Your task to perform on an android device: Do I have any events tomorrow? Image 0: 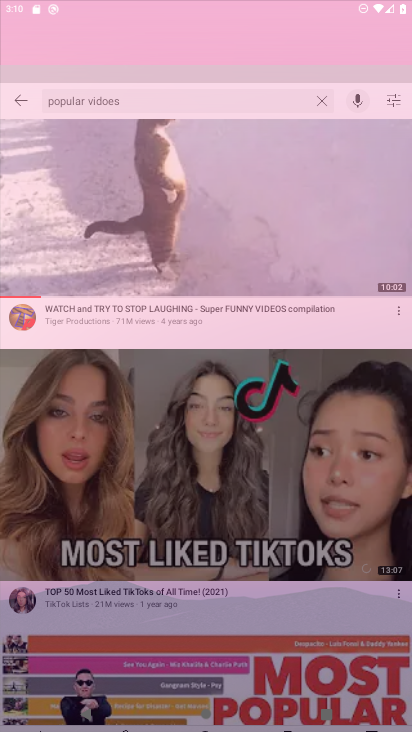
Step 0: drag from (309, 105) to (396, 149)
Your task to perform on an android device: Do I have any events tomorrow? Image 1: 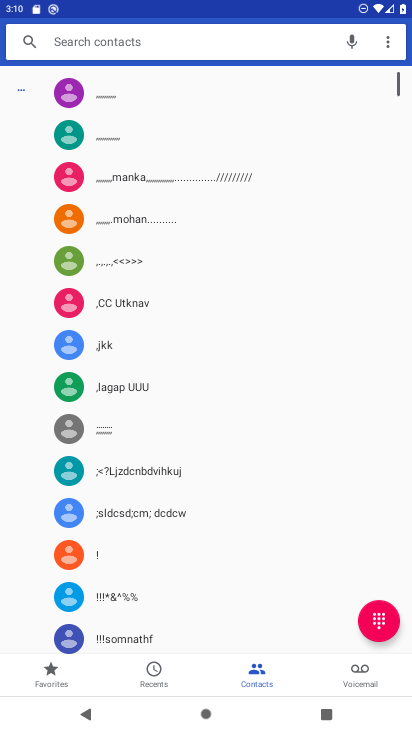
Step 1: press home button
Your task to perform on an android device: Do I have any events tomorrow? Image 2: 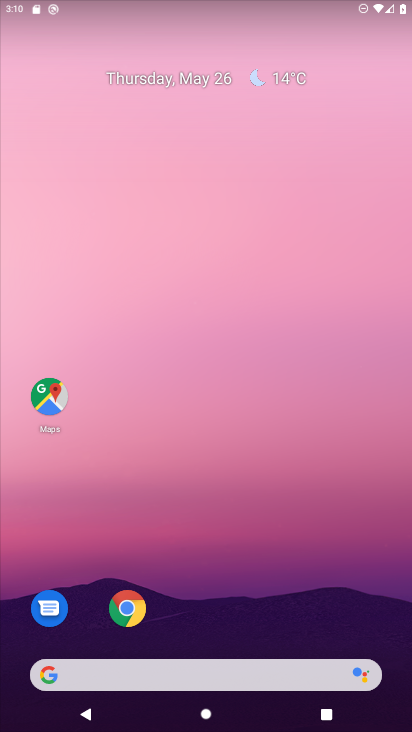
Step 2: drag from (291, 627) to (300, 167)
Your task to perform on an android device: Do I have any events tomorrow? Image 3: 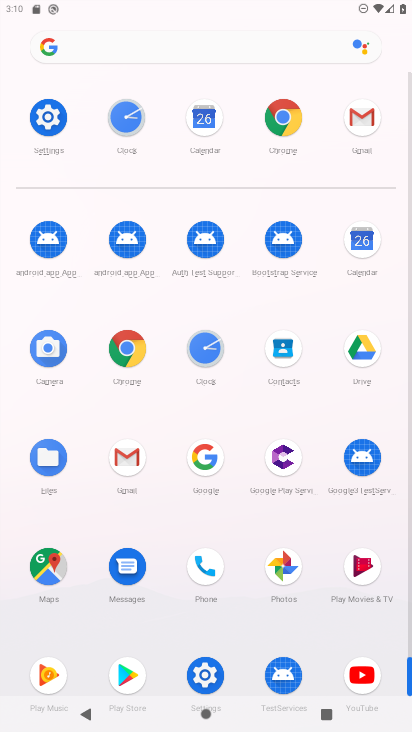
Step 3: click (362, 258)
Your task to perform on an android device: Do I have any events tomorrow? Image 4: 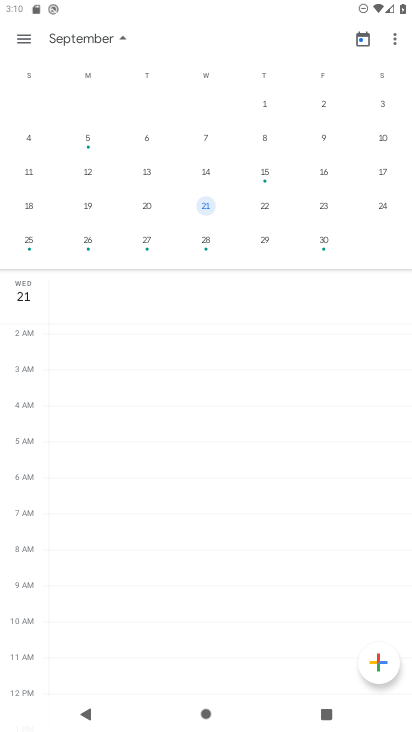
Step 4: click (266, 208)
Your task to perform on an android device: Do I have any events tomorrow? Image 5: 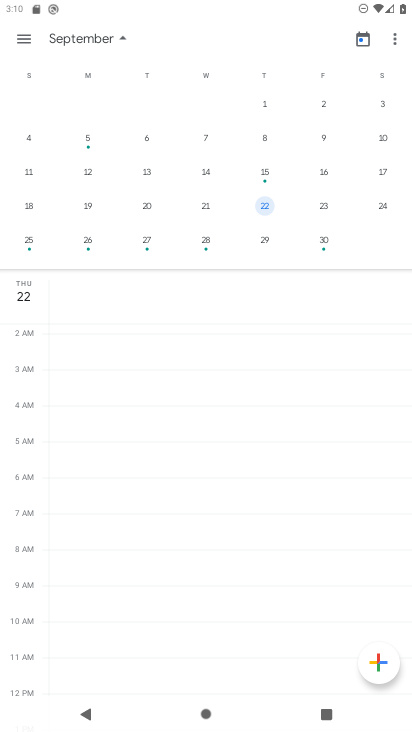
Step 5: task complete